Your task to perform on an android device: Go to wifi settings Image 0: 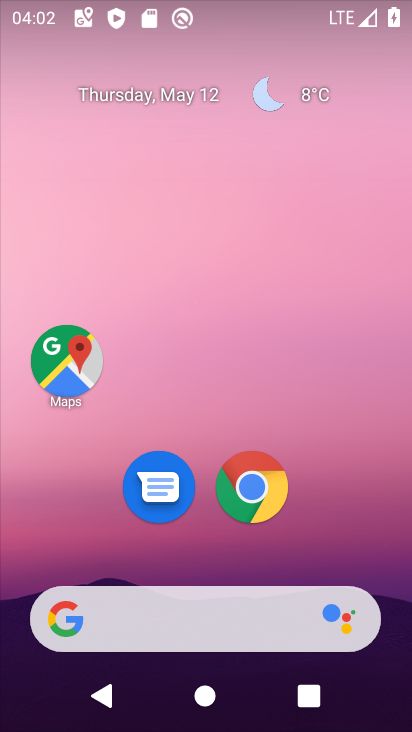
Step 0: drag from (345, 529) to (223, 96)
Your task to perform on an android device: Go to wifi settings Image 1: 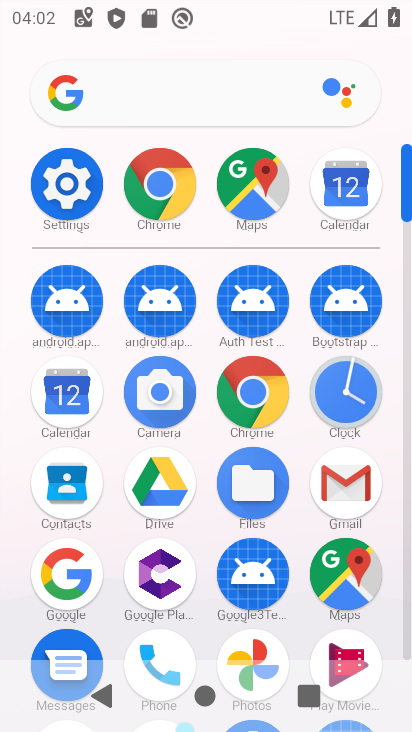
Step 1: click (60, 161)
Your task to perform on an android device: Go to wifi settings Image 2: 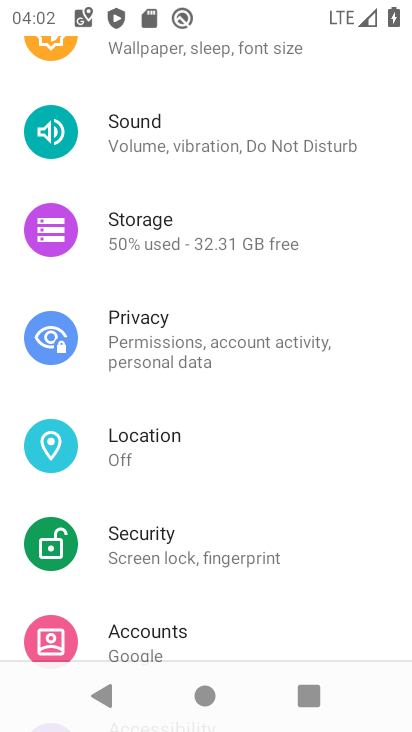
Step 2: drag from (236, 114) to (278, 525)
Your task to perform on an android device: Go to wifi settings Image 3: 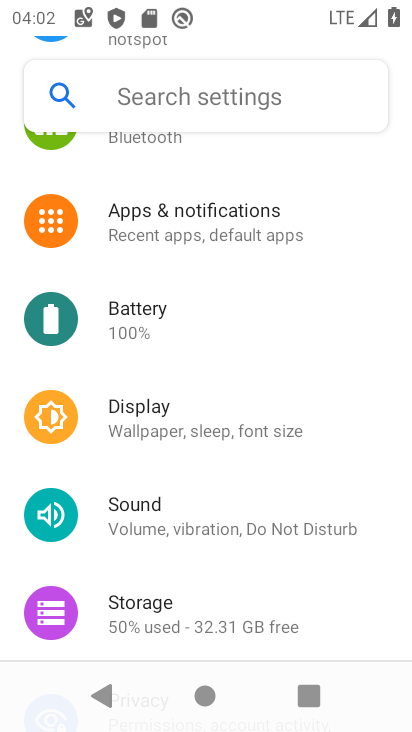
Step 3: drag from (180, 122) to (200, 459)
Your task to perform on an android device: Go to wifi settings Image 4: 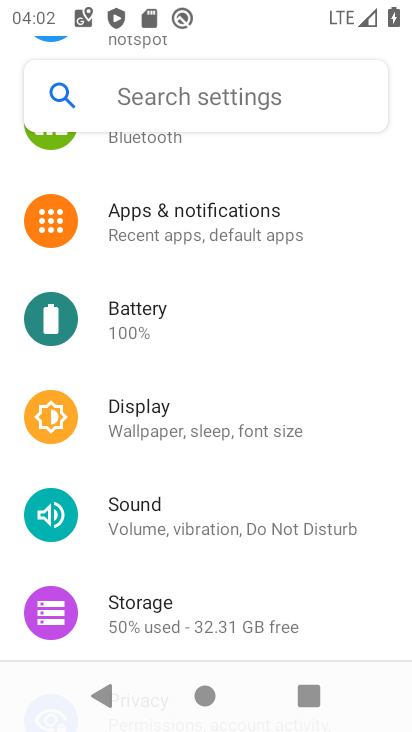
Step 4: drag from (174, 192) to (250, 469)
Your task to perform on an android device: Go to wifi settings Image 5: 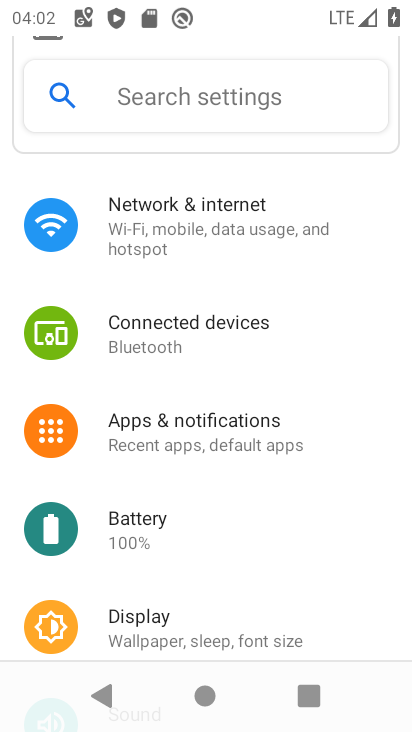
Step 5: click (182, 240)
Your task to perform on an android device: Go to wifi settings Image 6: 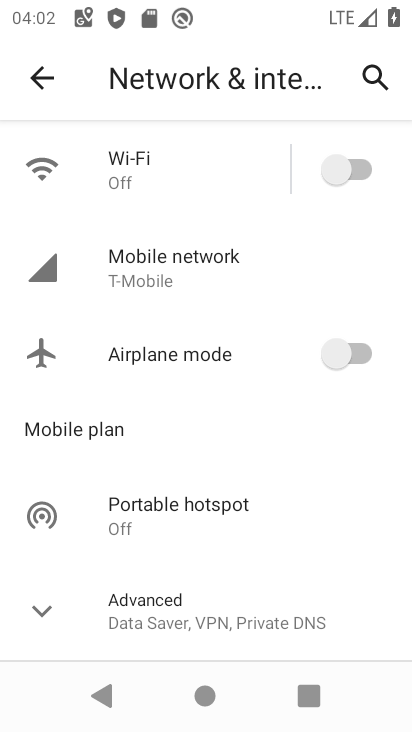
Step 6: click (174, 171)
Your task to perform on an android device: Go to wifi settings Image 7: 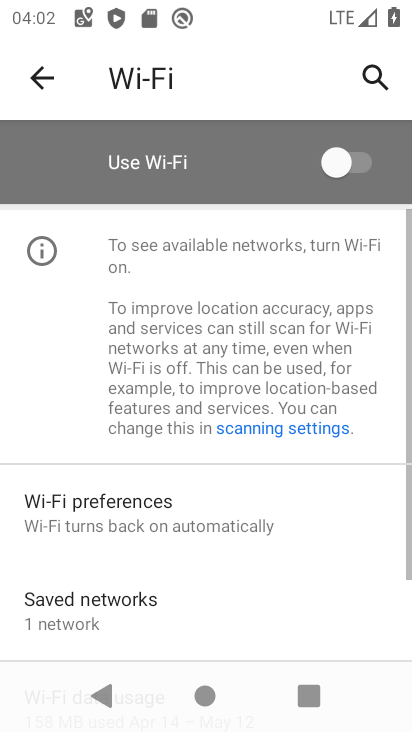
Step 7: click (306, 148)
Your task to perform on an android device: Go to wifi settings Image 8: 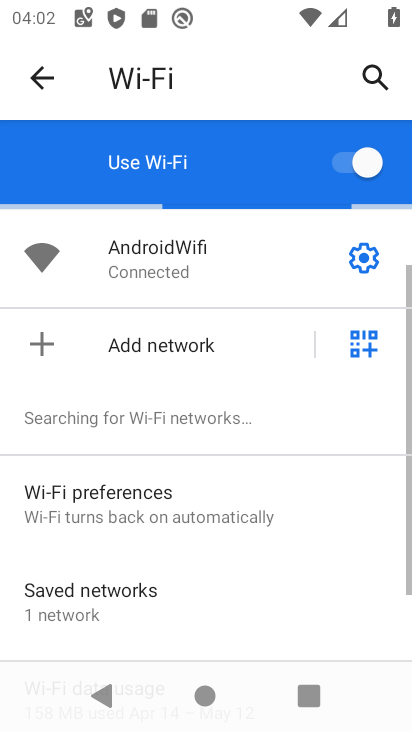
Step 8: click (364, 249)
Your task to perform on an android device: Go to wifi settings Image 9: 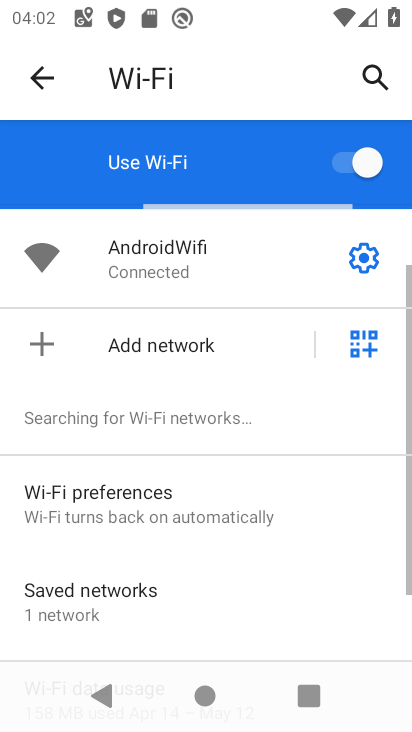
Step 9: click (371, 254)
Your task to perform on an android device: Go to wifi settings Image 10: 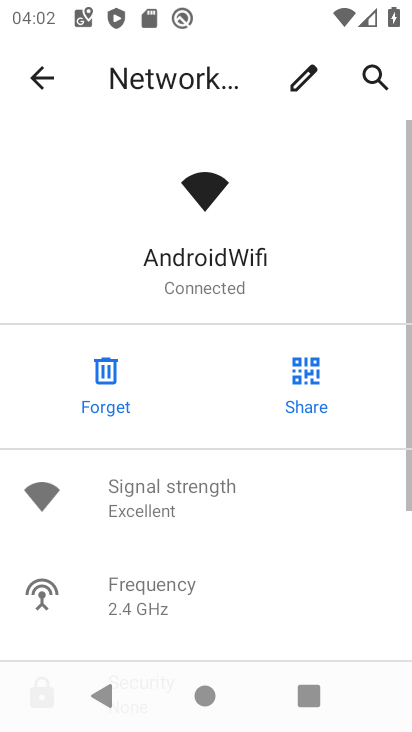
Step 10: task complete